Your task to perform on an android device: What's the weather going to be this weekend? Image 0: 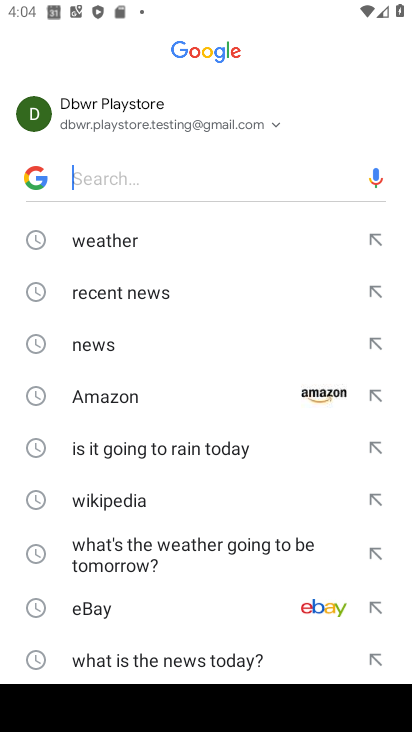
Step 0: press home button
Your task to perform on an android device: What's the weather going to be this weekend? Image 1: 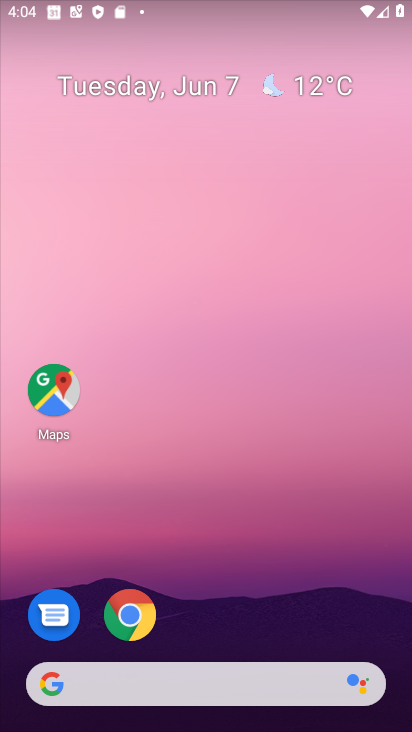
Step 1: click (327, 81)
Your task to perform on an android device: What's the weather going to be this weekend? Image 2: 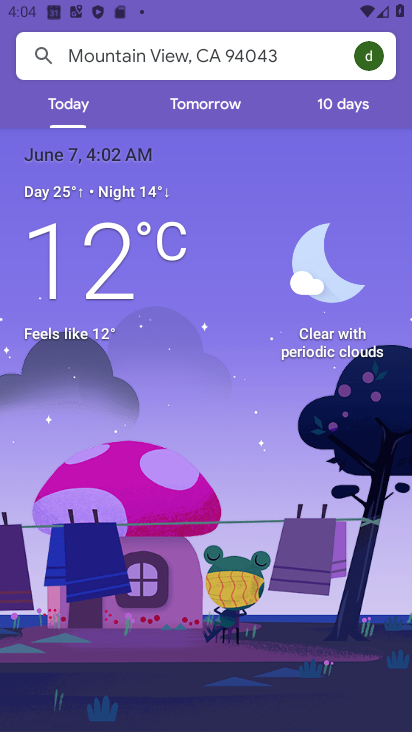
Step 2: click (349, 102)
Your task to perform on an android device: What's the weather going to be this weekend? Image 3: 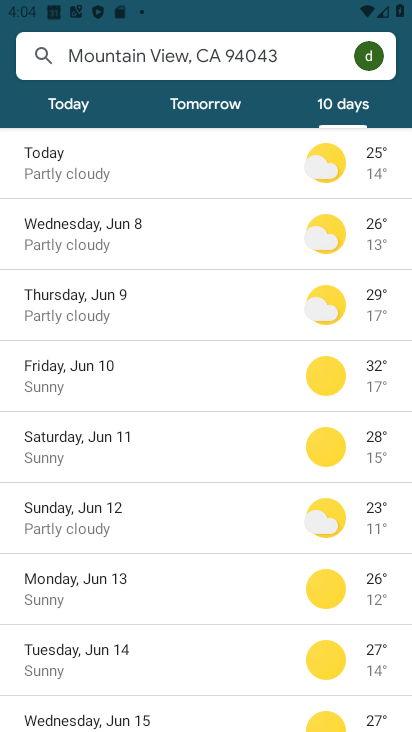
Step 3: task complete